Your task to perform on an android device: Open CNN.com Image 0: 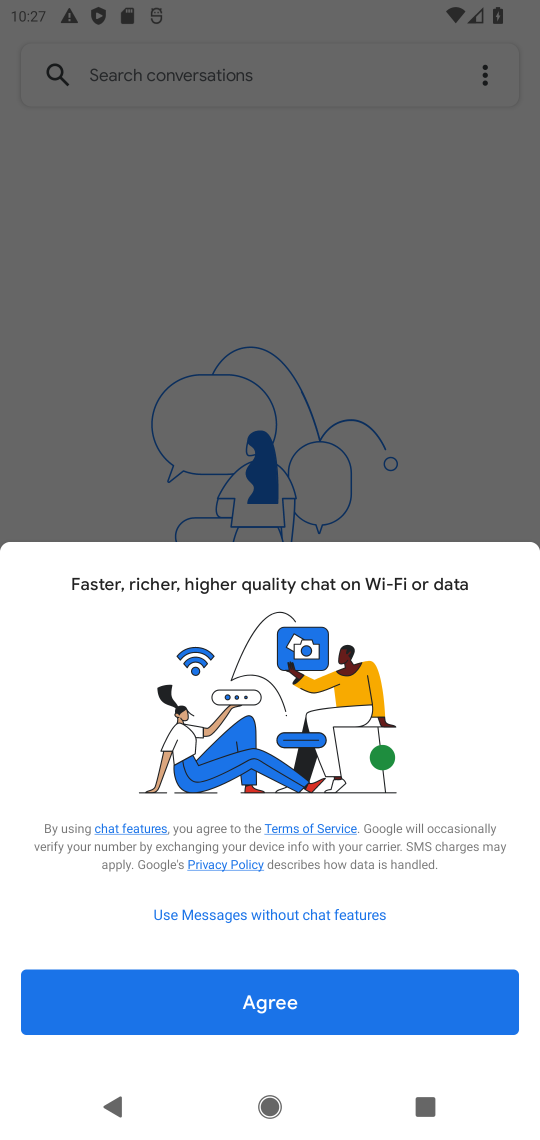
Step 0: press back button
Your task to perform on an android device: Open CNN.com Image 1: 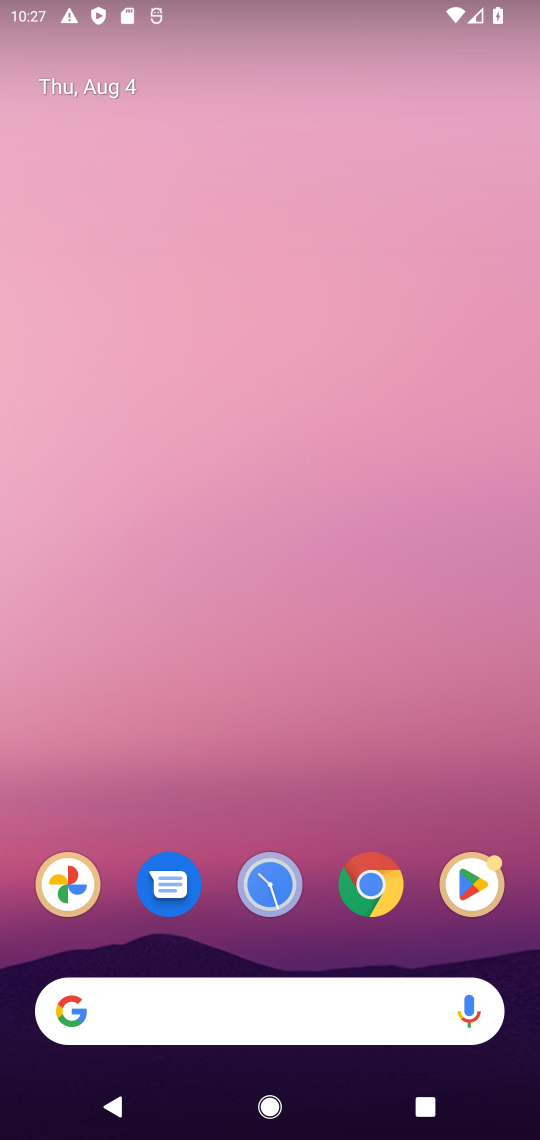
Step 1: click (377, 872)
Your task to perform on an android device: Open CNN.com Image 2: 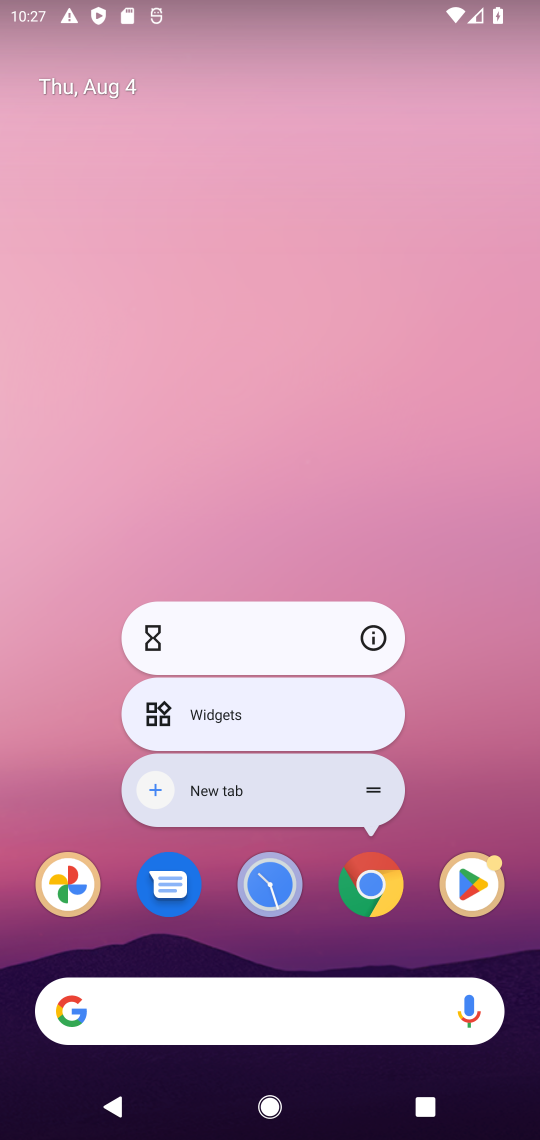
Step 2: click (352, 912)
Your task to perform on an android device: Open CNN.com Image 3: 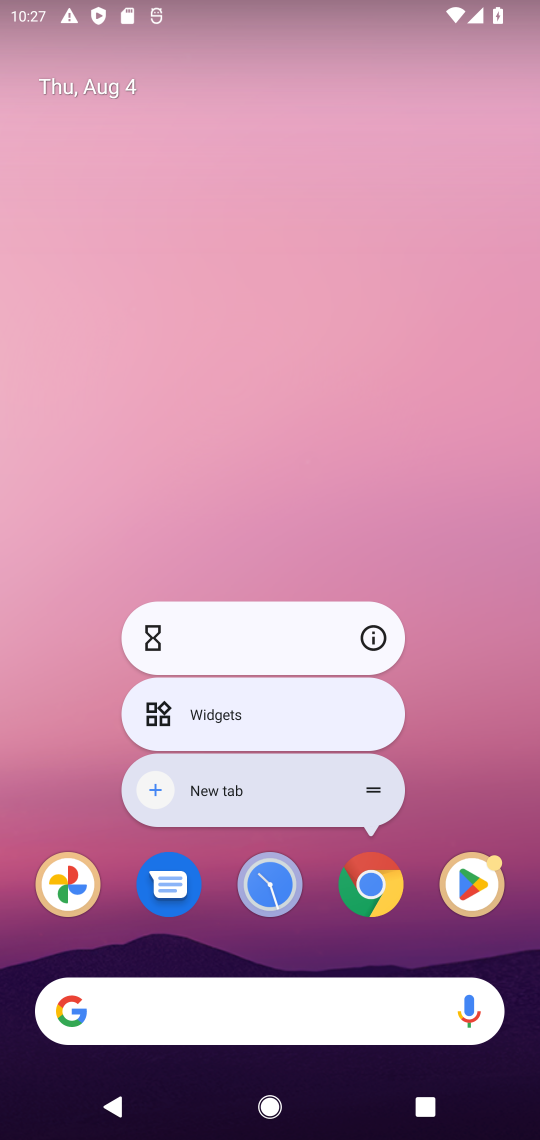
Step 3: click (387, 908)
Your task to perform on an android device: Open CNN.com Image 4: 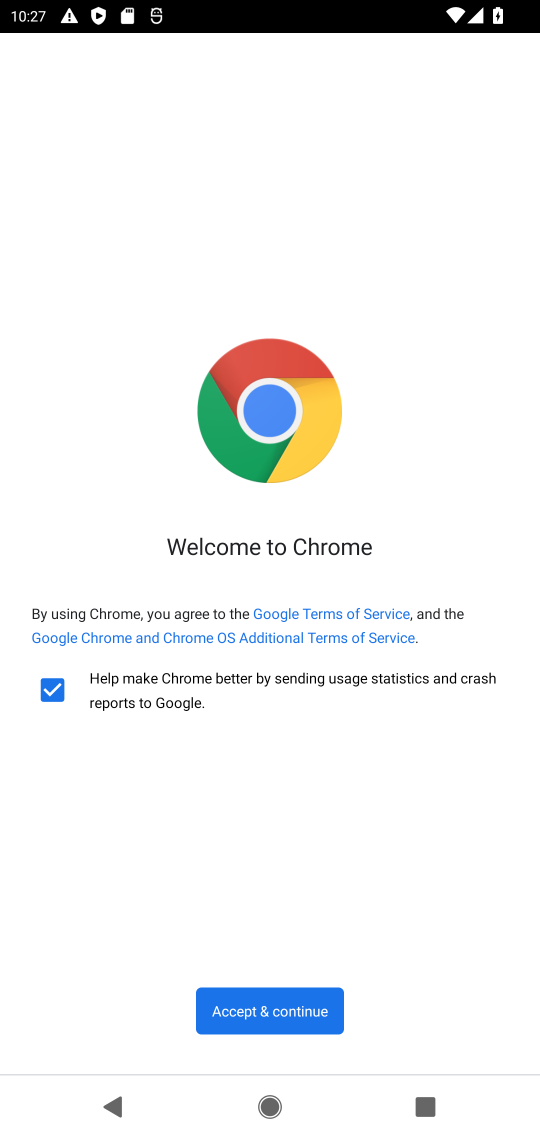
Step 4: click (294, 1009)
Your task to perform on an android device: Open CNN.com Image 5: 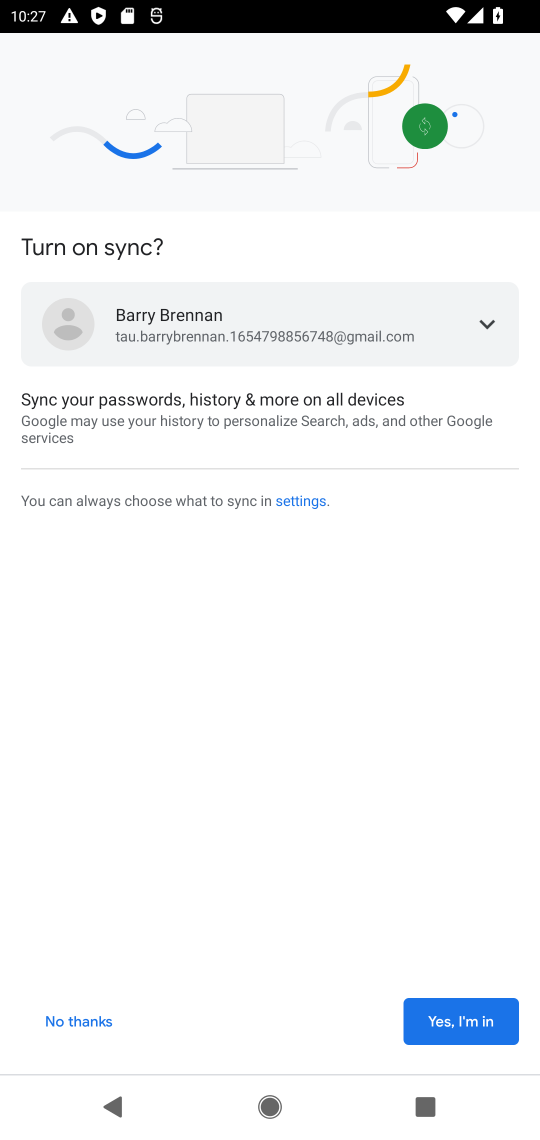
Step 5: click (459, 1033)
Your task to perform on an android device: Open CNN.com Image 6: 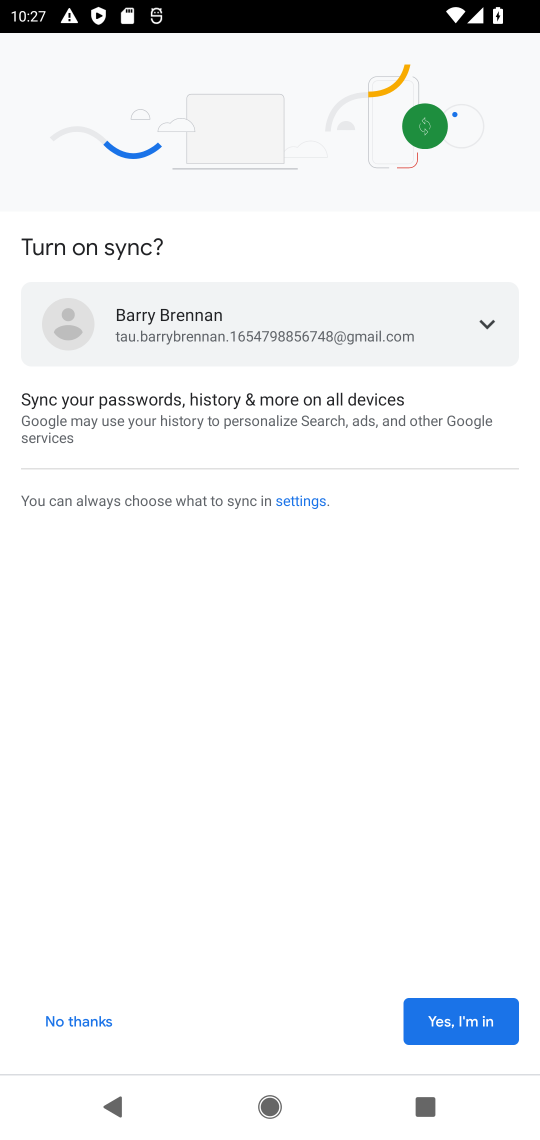
Step 6: click (445, 1023)
Your task to perform on an android device: Open CNN.com Image 7: 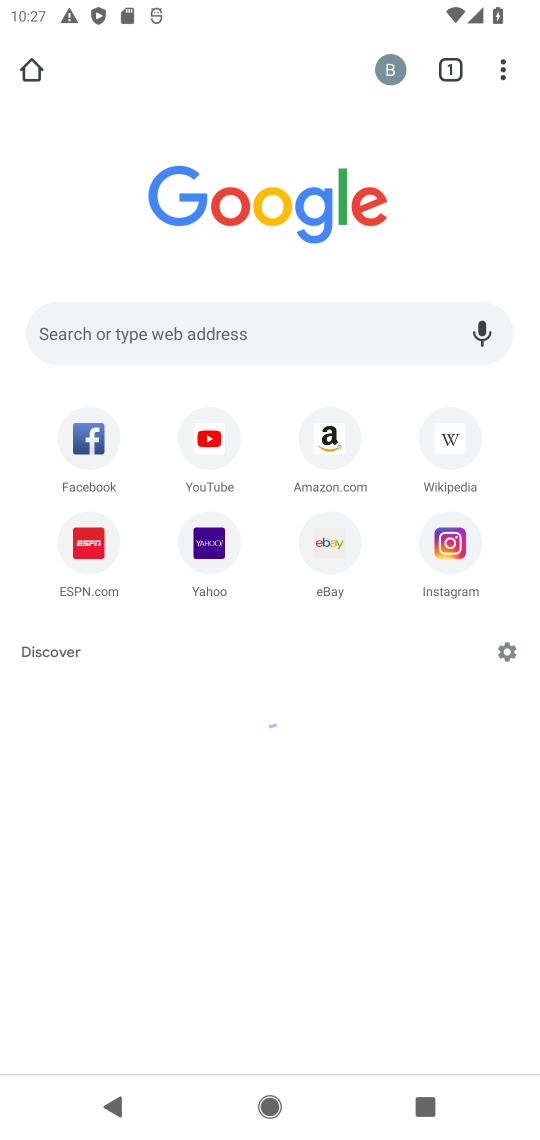
Step 7: click (246, 349)
Your task to perform on an android device: Open CNN.com Image 8: 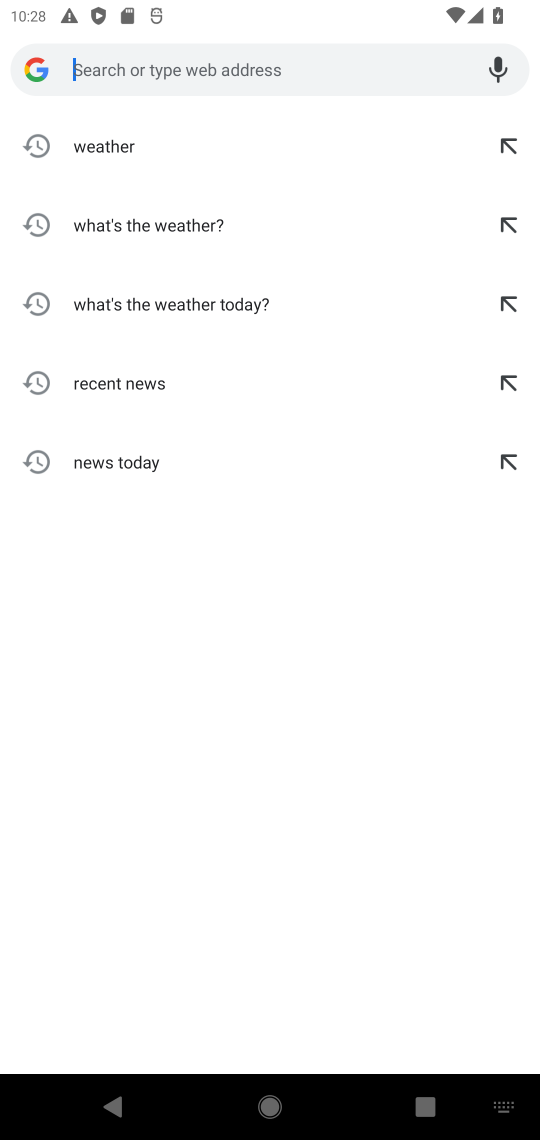
Step 8: type "cnn.com"
Your task to perform on an android device: Open CNN.com Image 9: 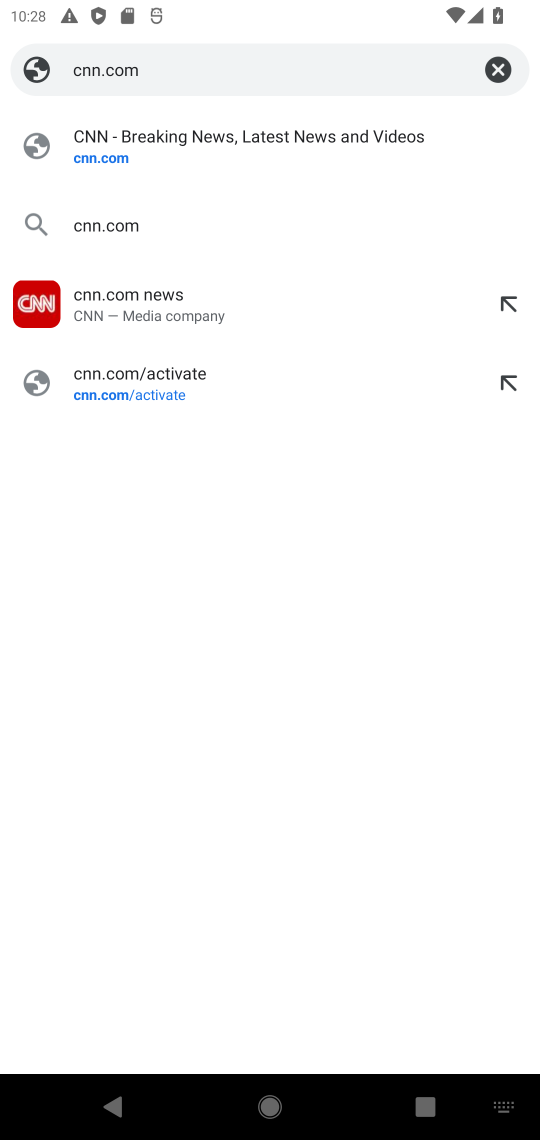
Step 9: click (177, 130)
Your task to perform on an android device: Open CNN.com Image 10: 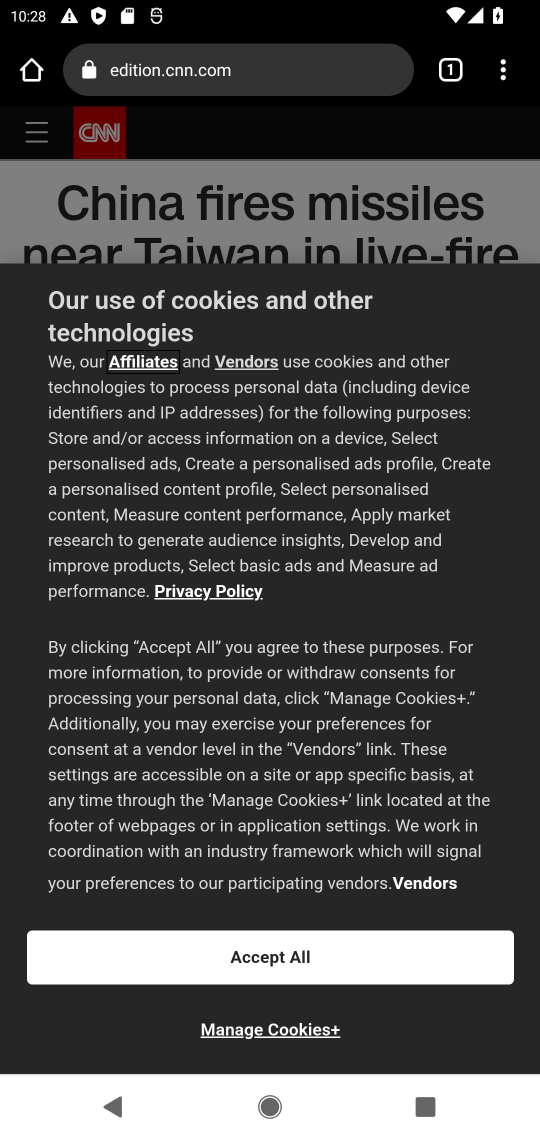
Step 10: task complete